Your task to perform on an android device: check google app version Image 0: 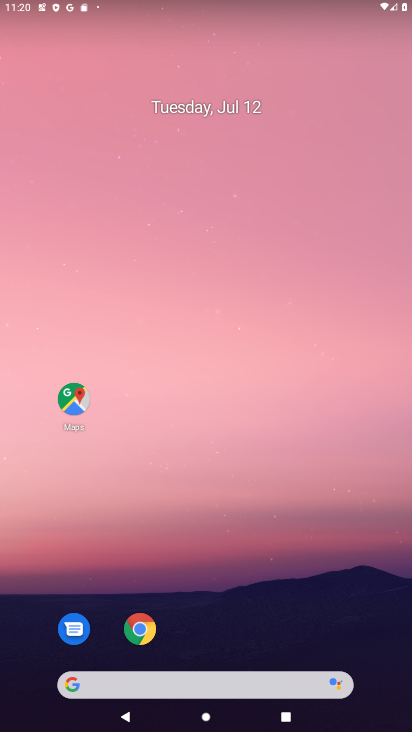
Step 0: drag from (194, 593) to (235, 276)
Your task to perform on an android device: check google app version Image 1: 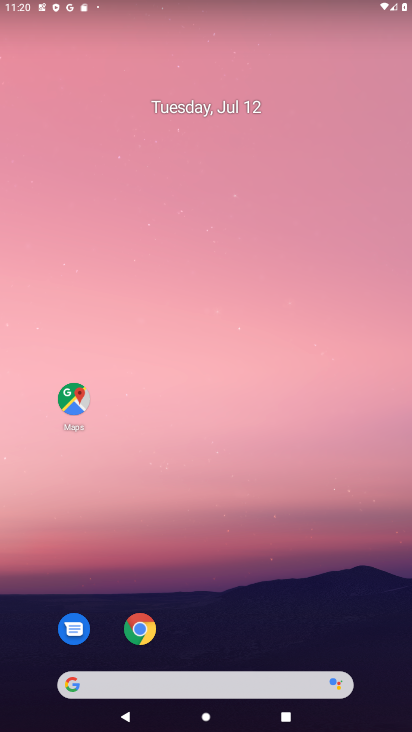
Step 1: drag from (274, 644) to (264, 222)
Your task to perform on an android device: check google app version Image 2: 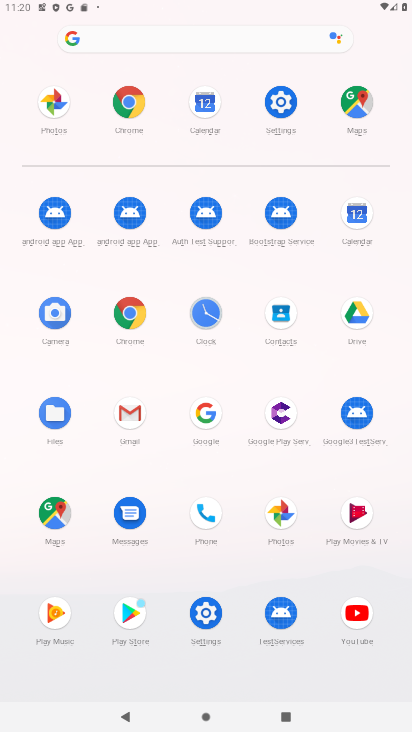
Step 2: click (213, 408)
Your task to perform on an android device: check google app version Image 3: 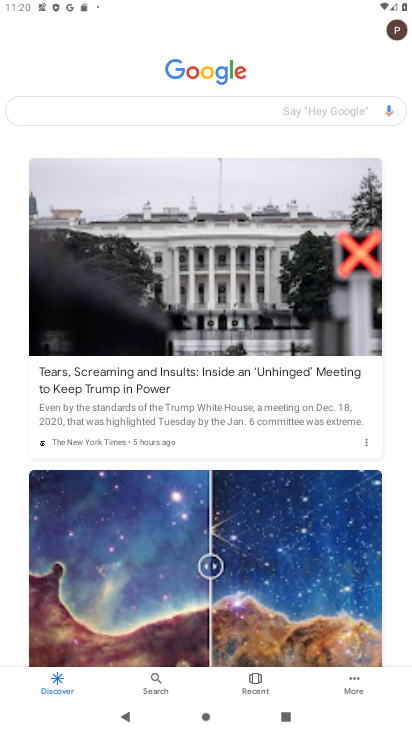
Step 3: click (361, 684)
Your task to perform on an android device: check google app version Image 4: 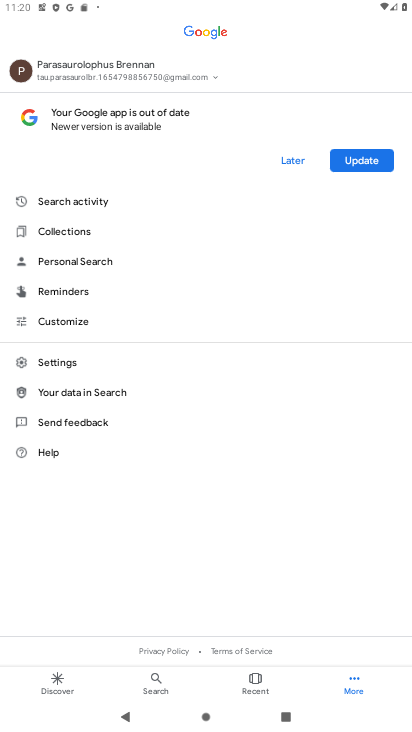
Step 4: click (79, 361)
Your task to perform on an android device: check google app version Image 5: 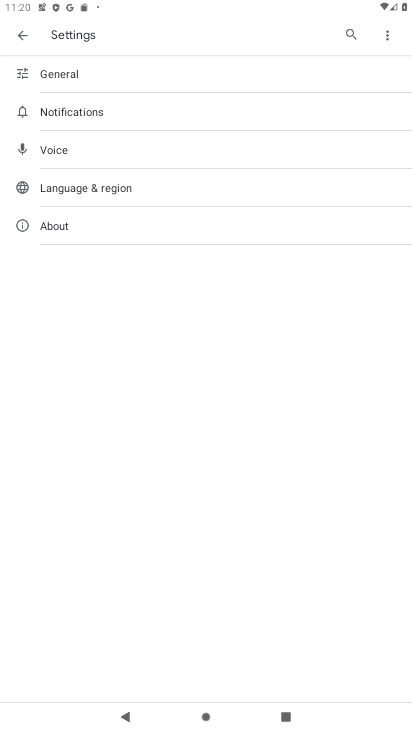
Step 5: click (79, 227)
Your task to perform on an android device: check google app version Image 6: 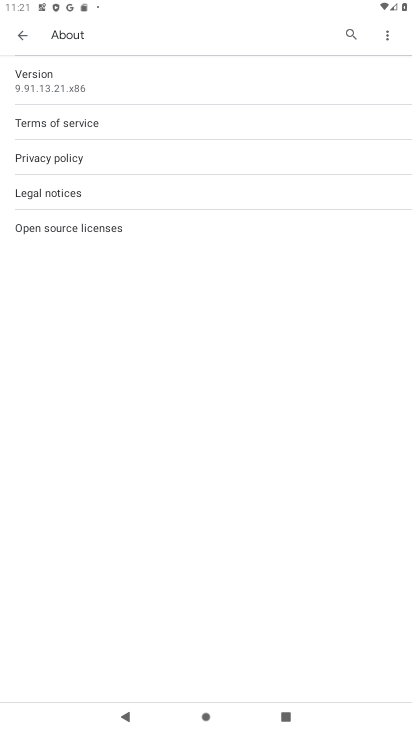
Step 6: task complete